Your task to perform on an android device: Open the web browser Image 0: 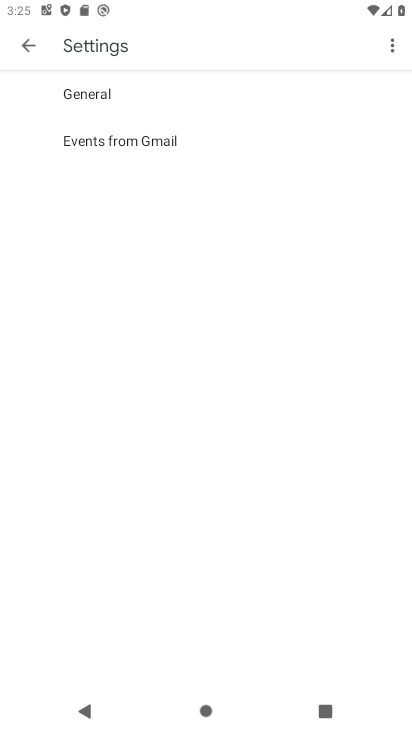
Step 0: press home button
Your task to perform on an android device: Open the web browser Image 1: 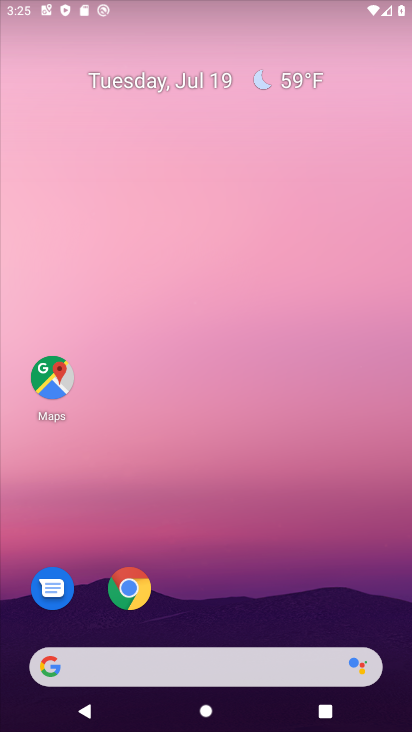
Step 1: click (211, 622)
Your task to perform on an android device: Open the web browser Image 2: 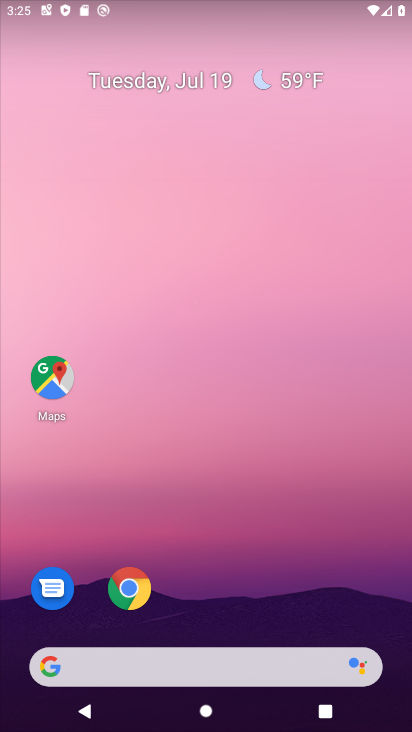
Step 2: click (147, 588)
Your task to perform on an android device: Open the web browser Image 3: 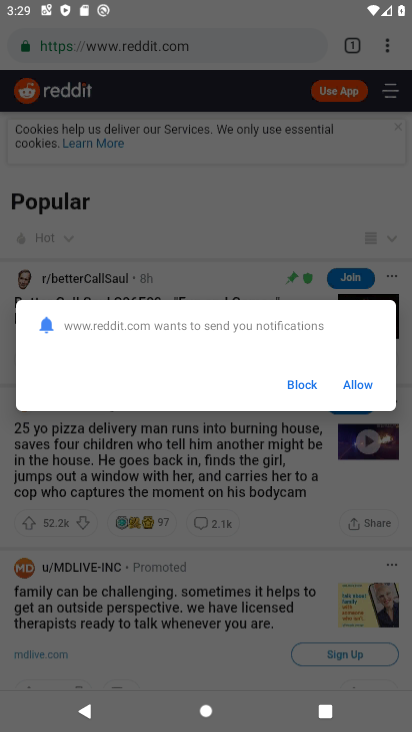
Step 3: task complete